Your task to perform on an android device: turn smart compose on in the gmail app Image 0: 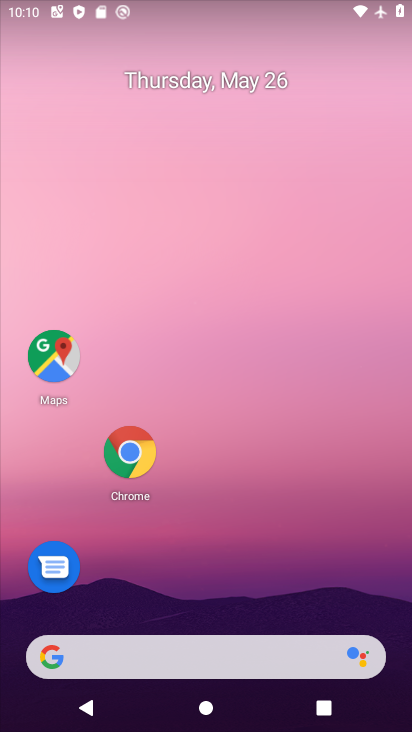
Step 0: press home button
Your task to perform on an android device: turn smart compose on in the gmail app Image 1: 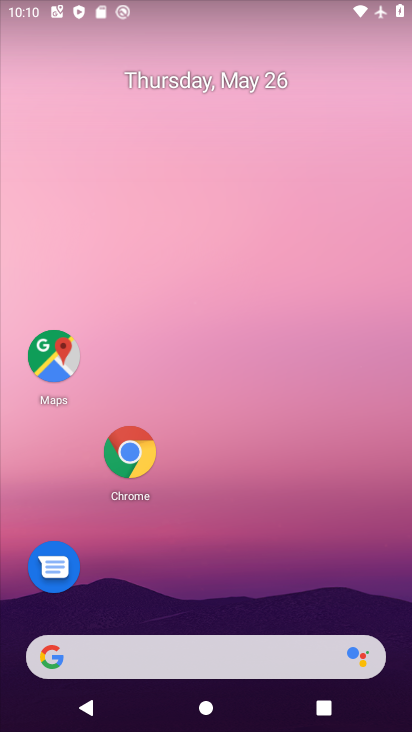
Step 1: drag from (160, 651) to (166, 109)
Your task to perform on an android device: turn smart compose on in the gmail app Image 2: 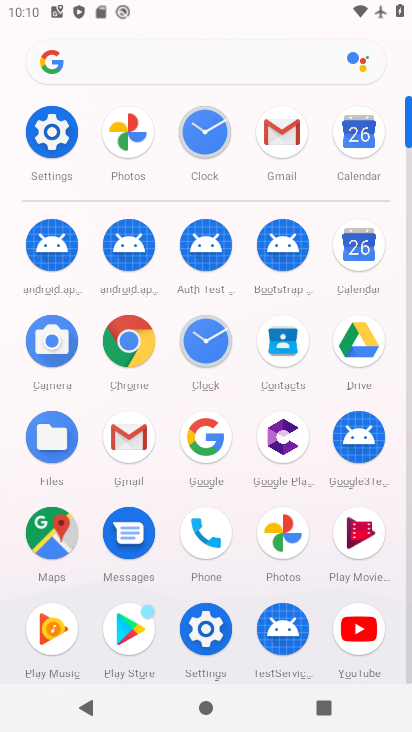
Step 2: click (287, 138)
Your task to perform on an android device: turn smart compose on in the gmail app Image 3: 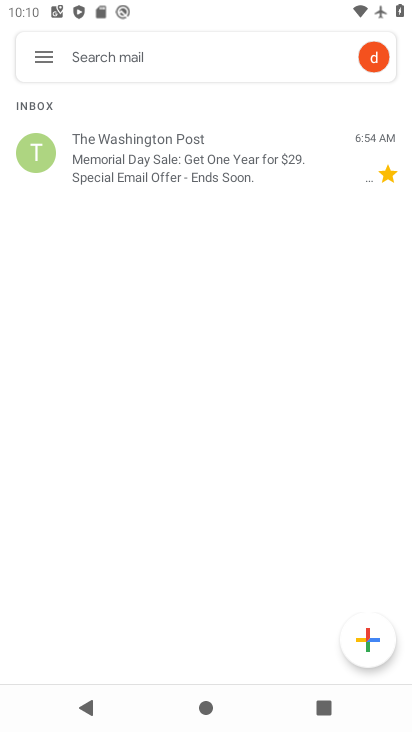
Step 3: click (49, 63)
Your task to perform on an android device: turn smart compose on in the gmail app Image 4: 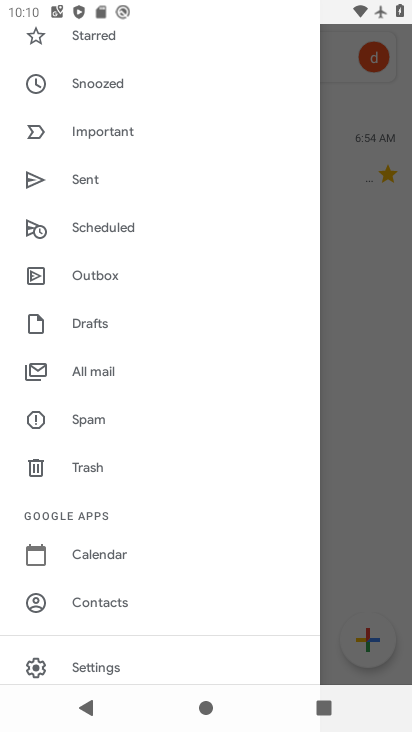
Step 4: click (103, 665)
Your task to perform on an android device: turn smart compose on in the gmail app Image 5: 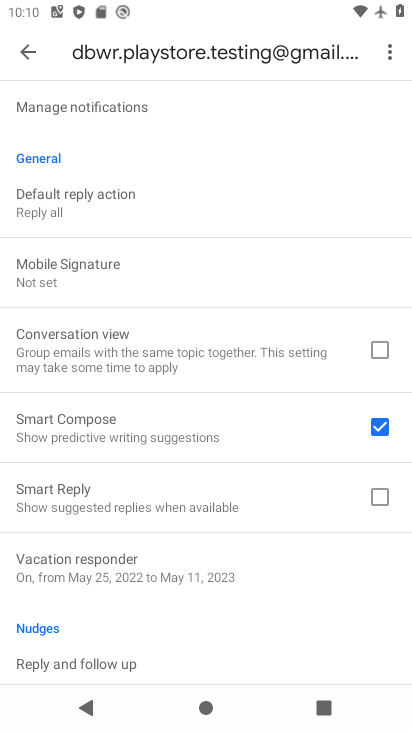
Step 5: task complete